Your task to perform on an android device: delete a single message in the gmail app Image 0: 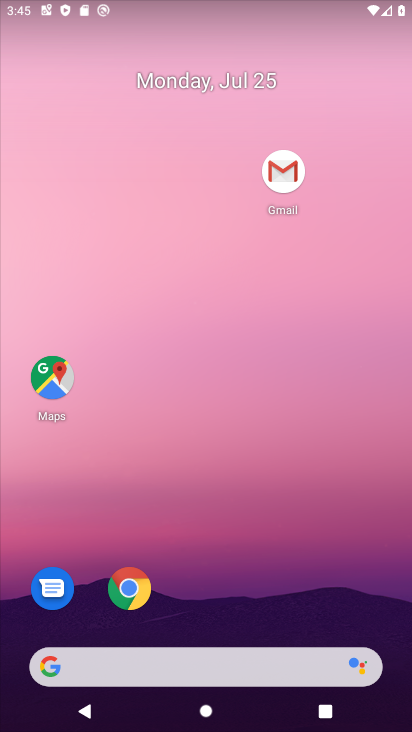
Step 0: drag from (302, 566) to (247, 39)
Your task to perform on an android device: delete a single message in the gmail app Image 1: 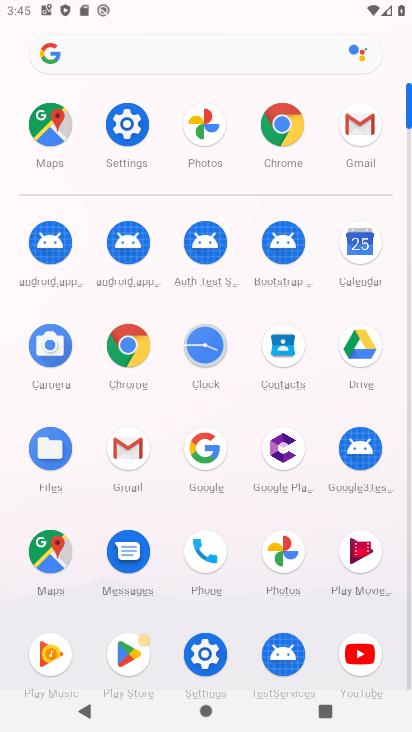
Step 1: click (350, 132)
Your task to perform on an android device: delete a single message in the gmail app Image 2: 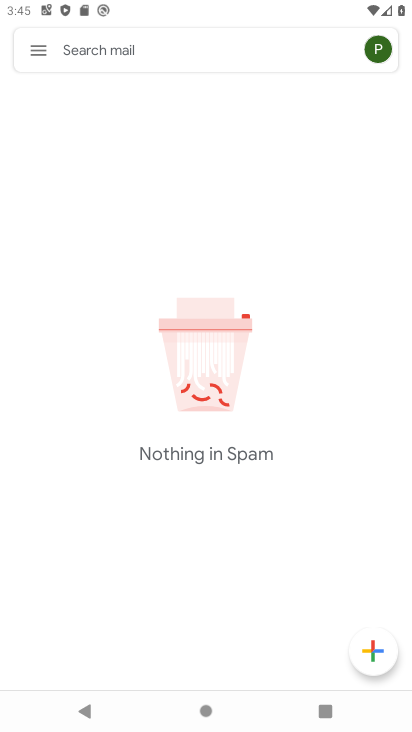
Step 2: click (29, 47)
Your task to perform on an android device: delete a single message in the gmail app Image 3: 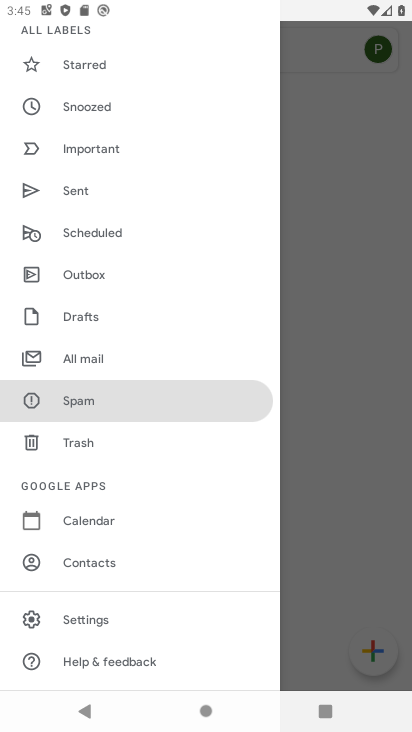
Step 3: click (103, 365)
Your task to perform on an android device: delete a single message in the gmail app Image 4: 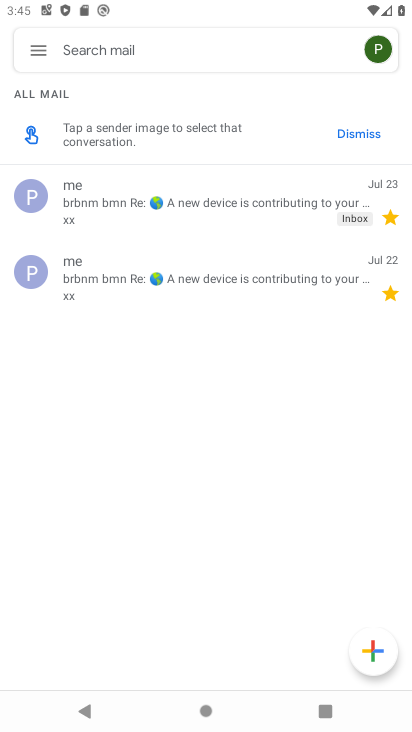
Step 4: click (286, 201)
Your task to perform on an android device: delete a single message in the gmail app Image 5: 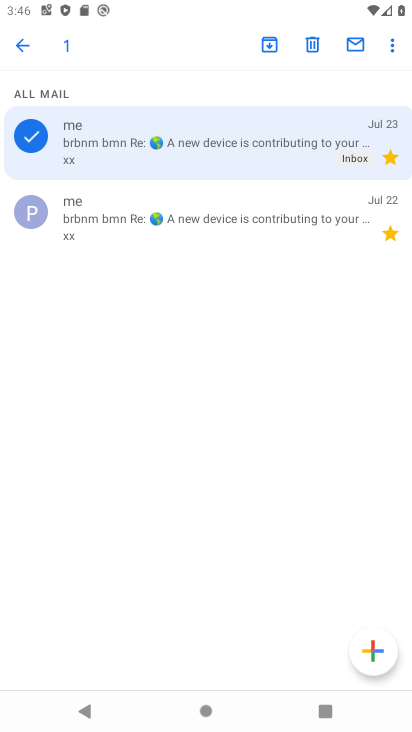
Step 5: click (313, 43)
Your task to perform on an android device: delete a single message in the gmail app Image 6: 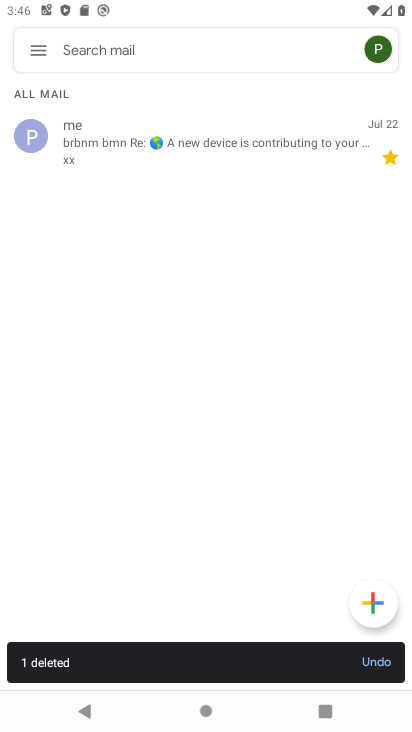
Step 6: task complete